Your task to perform on an android device: Open Yahoo.com Image 0: 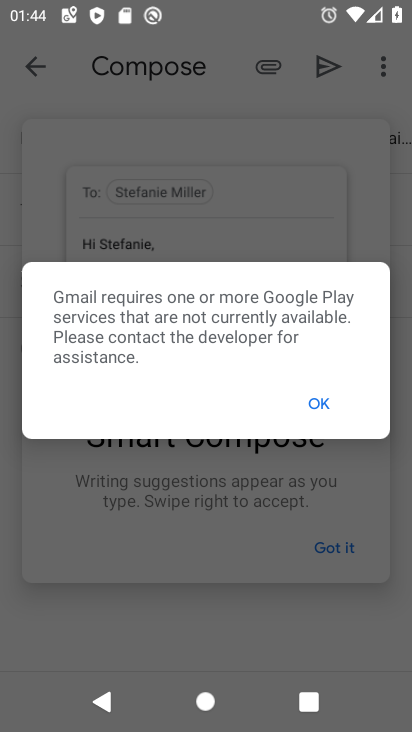
Step 0: press home button
Your task to perform on an android device: Open Yahoo.com Image 1: 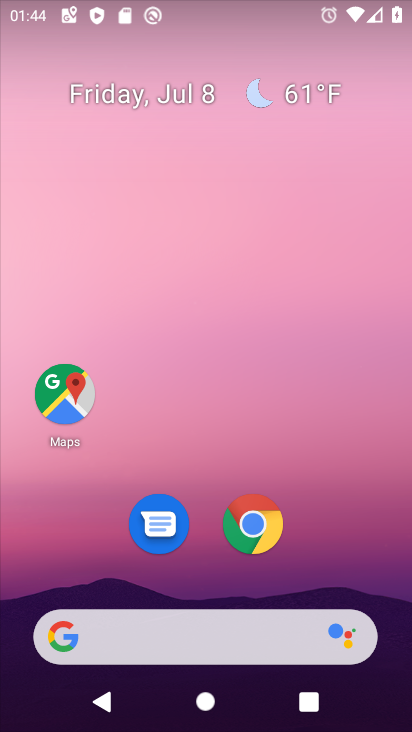
Step 1: click (254, 648)
Your task to perform on an android device: Open Yahoo.com Image 2: 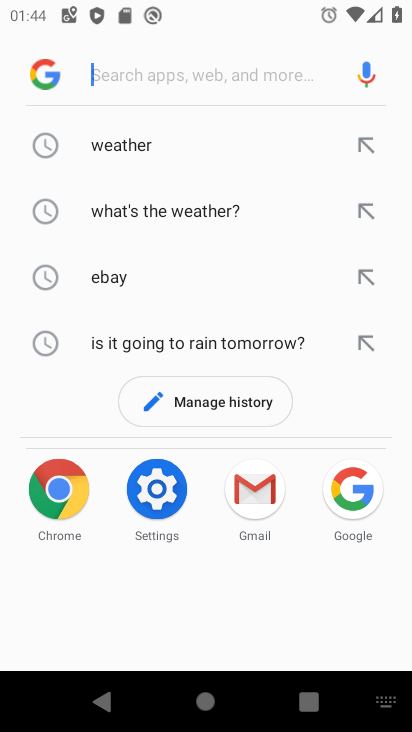
Step 2: type "yahoo.com"
Your task to perform on an android device: Open Yahoo.com Image 3: 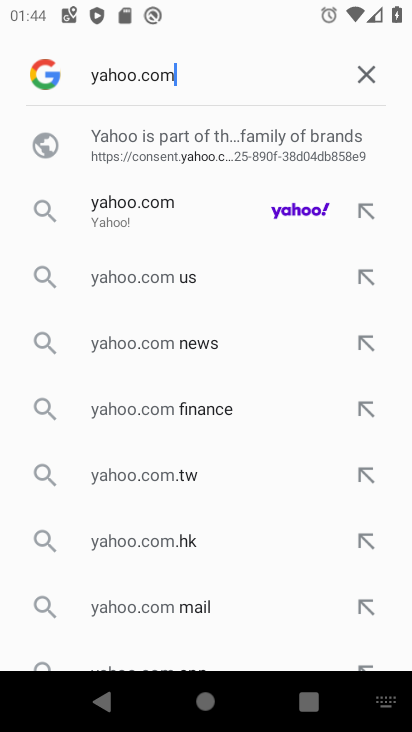
Step 3: click (316, 210)
Your task to perform on an android device: Open Yahoo.com Image 4: 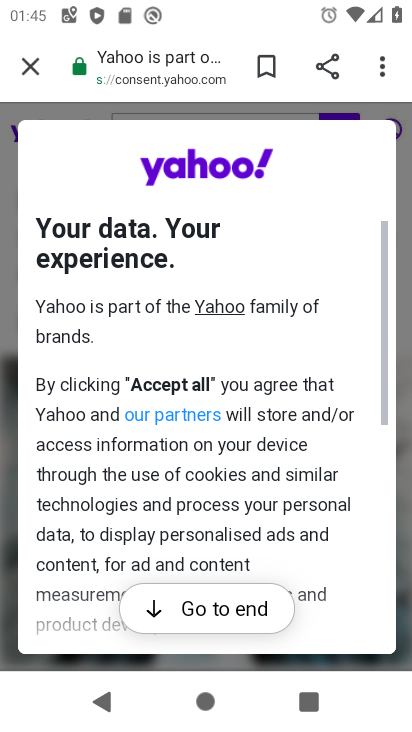
Step 4: click (267, 610)
Your task to perform on an android device: Open Yahoo.com Image 5: 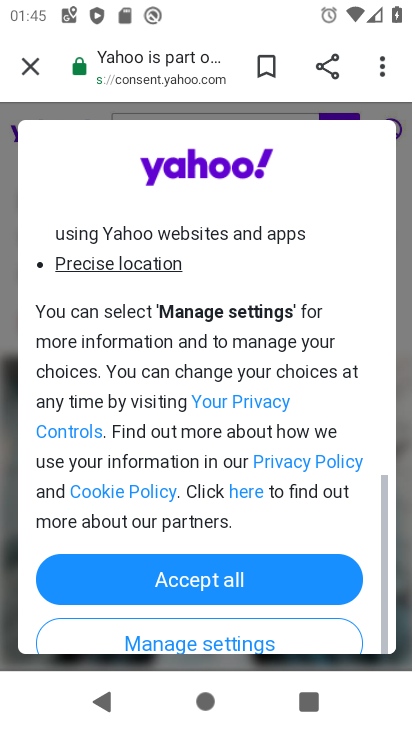
Step 5: click (264, 582)
Your task to perform on an android device: Open Yahoo.com Image 6: 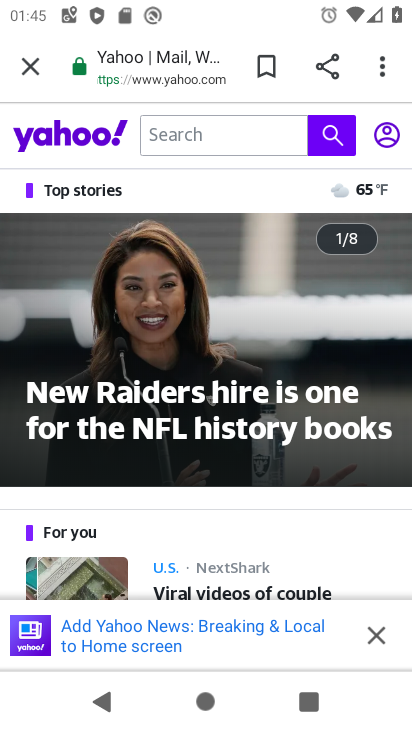
Step 6: task complete